Your task to perform on an android device: add a label to a message in the gmail app Image 0: 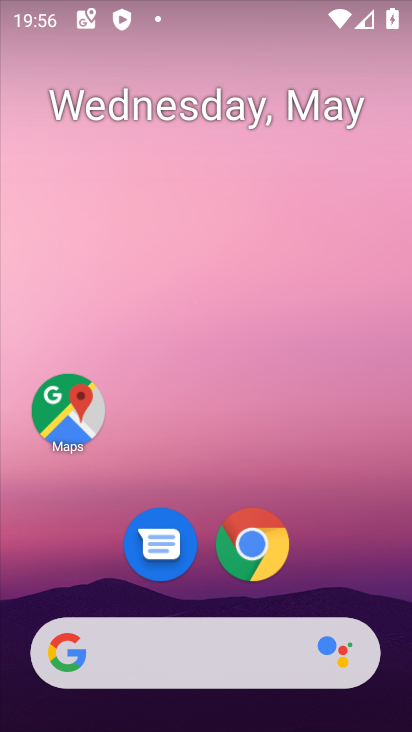
Step 0: drag from (206, 587) to (221, 87)
Your task to perform on an android device: add a label to a message in the gmail app Image 1: 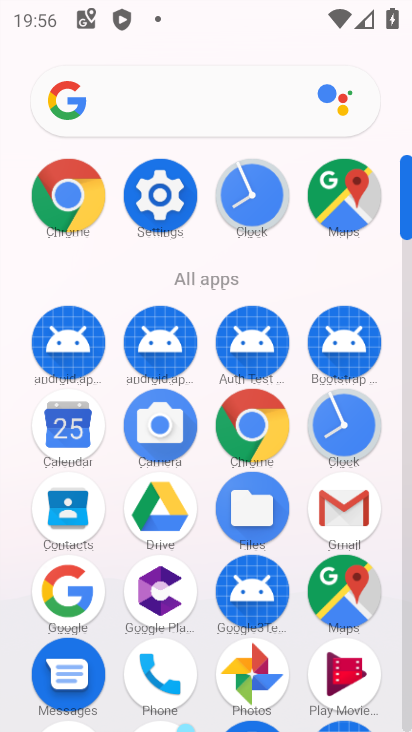
Step 1: click (319, 509)
Your task to perform on an android device: add a label to a message in the gmail app Image 2: 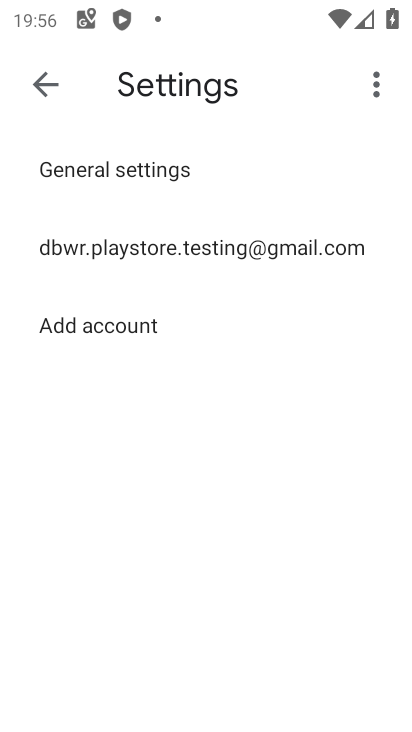
Step 2: click (32, 86)
Your task to perform on an android device: add a label to a message in the gmail app Image 3: 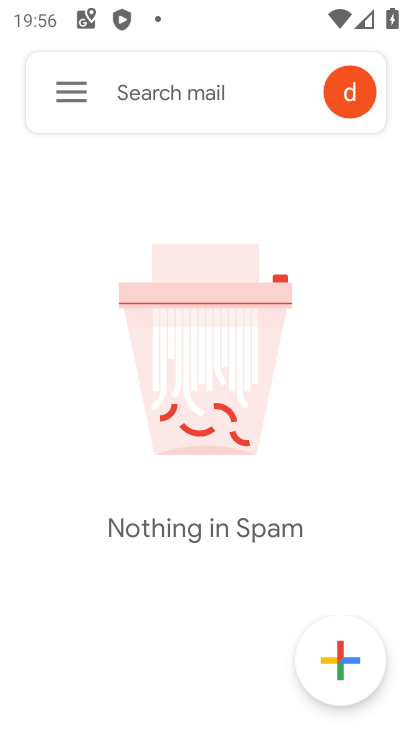
Step 3: click (53, 84)
Your task to perform on an android device: add a label to a message in the gmail app Image 4: 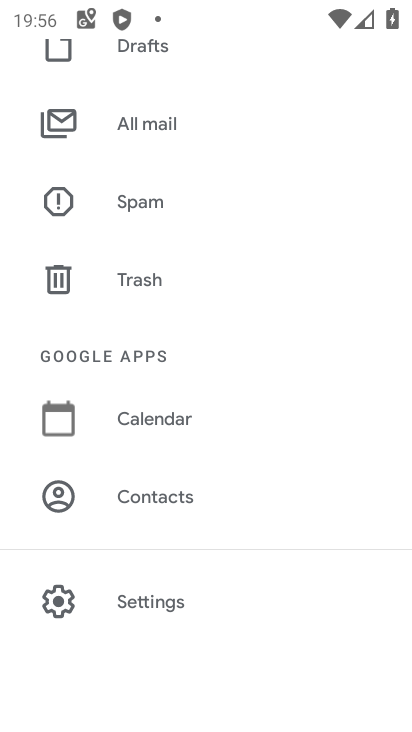
Step 4: click (150, 107)
Your task to perform on an android device: add a label to a message in the gmail app Image 5: 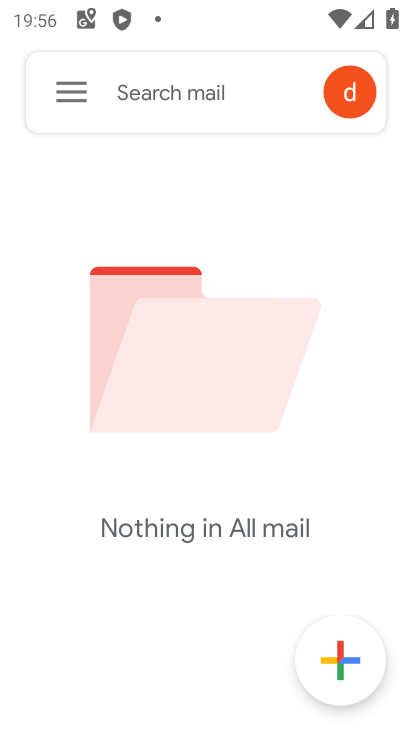
Step 5: task complete